Your task to perform on an android device: clear history in the chrome app Image 0: 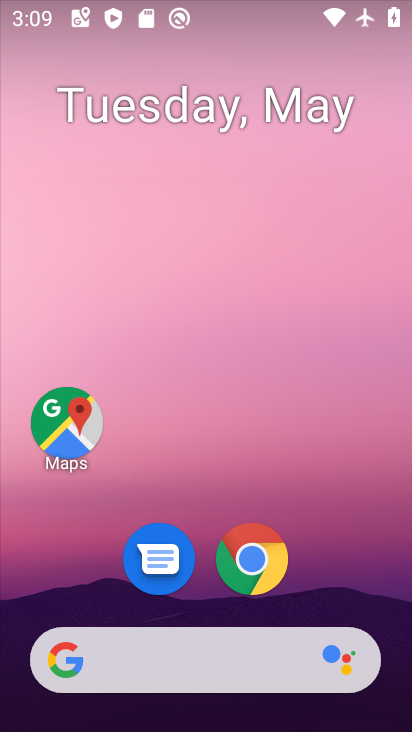
Step 0: click (260, 567)
Your task to perform on an android device: clear history in the chrome app Image 1: 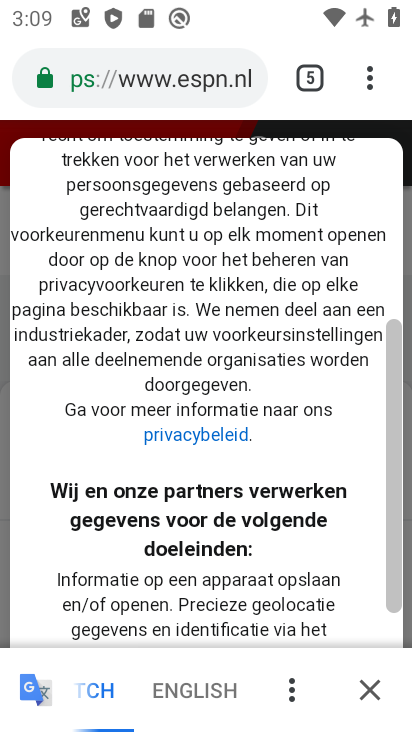
Step 1: drag from (371, 76) to (165, 440)
Your task to perform on an android device: clear history in the chrome app Image 2: 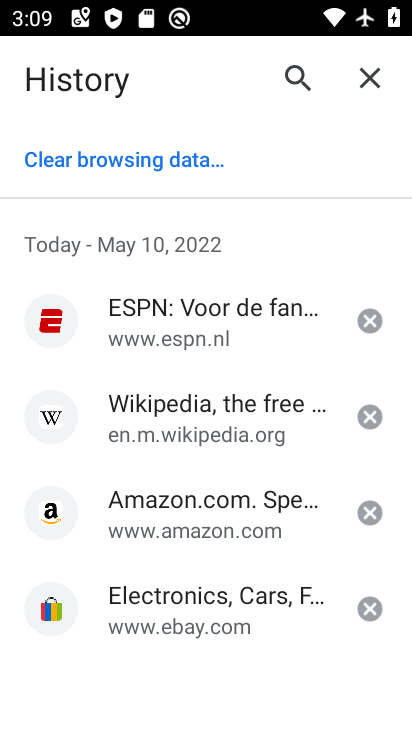
Step 2: click (138, 158)
Your task to perform on an android device: clear history in the chrome app Image 3: 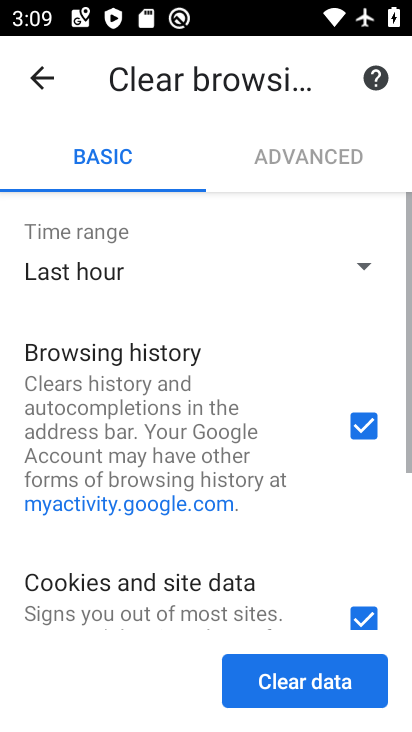
Step 3: drag from (254, 554) to (357, 161)
Your task to perform on an android device: clear history in the chrome app Image 4: 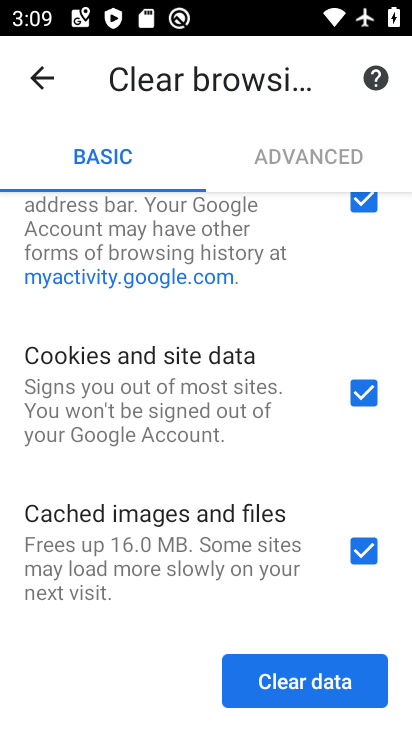
Step 4: click (321, 687)
Your task to perform on an android device: clear history in the chrome app Image 5: 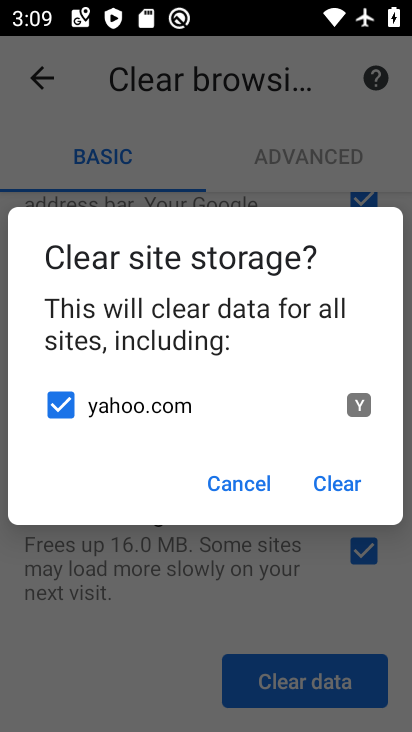
Step 5: click (353, 483)
Your task to perform on an android device: clear history in the chrome app Image 6: 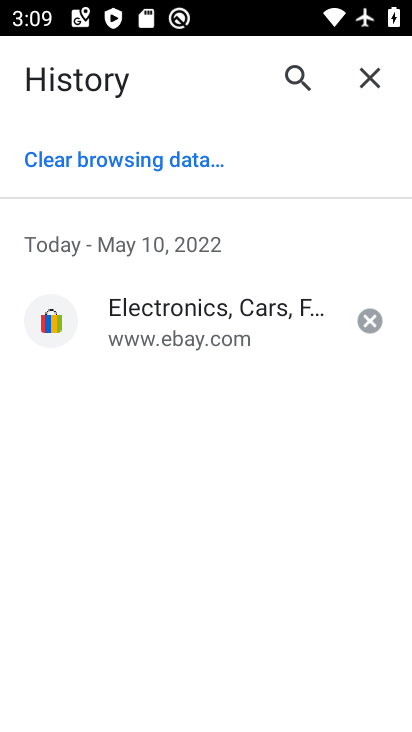
Step 6: click (181, 158)
Your task to perform on an android device: clear history in the chrome app Image 7: 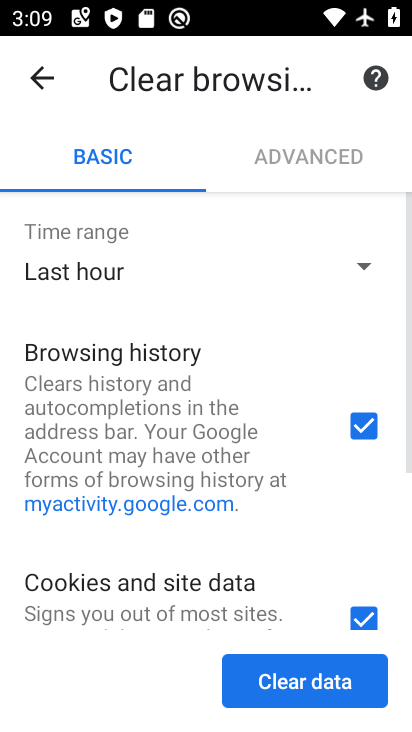
Step 7: drag from (351, 400) to (367, 251)
Your task to perform on an android device: clear history in the chrome app Image 8: 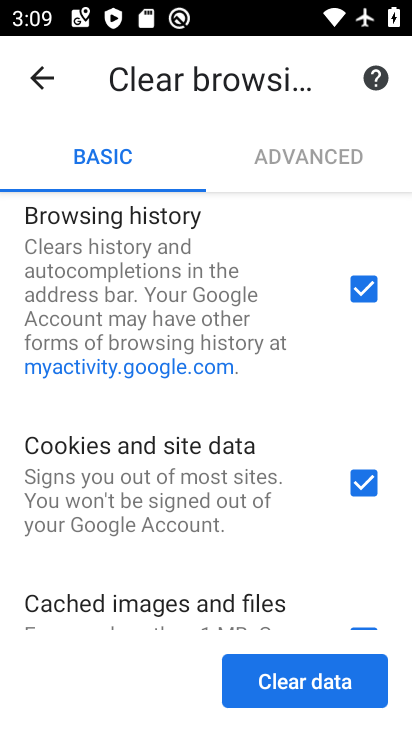
Step 8: click (297, 680)
Your task to perform on an android device: clear history in the chrome app Image 9: 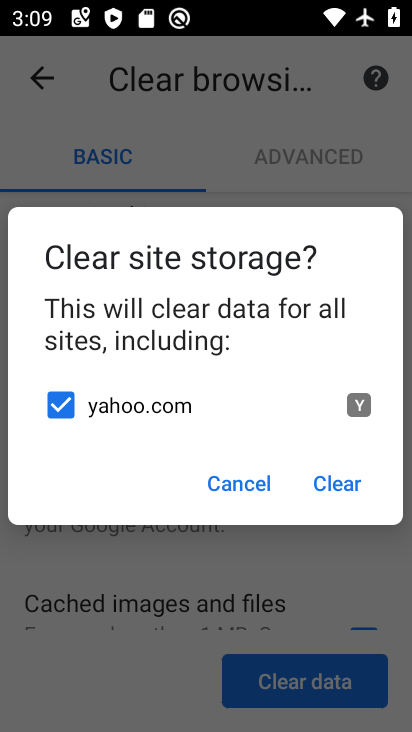
Step 9: click (325, 478)
Your task to perform on an android device: clear history in the chrome app Image 10: 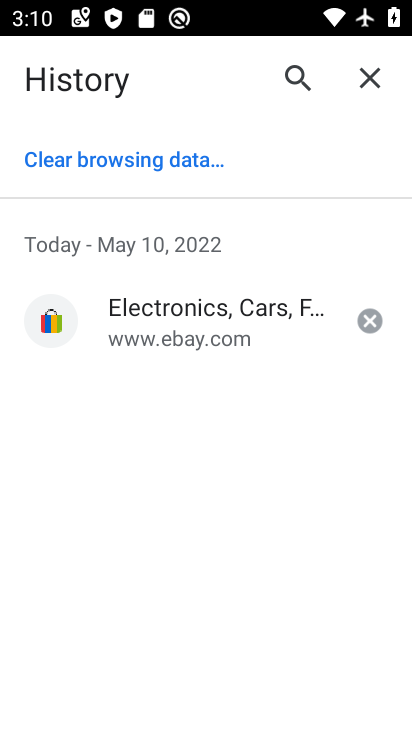
Step 10: task complete